Your task to perform on an android device: Go to calendar. Show me events next week Image 0: 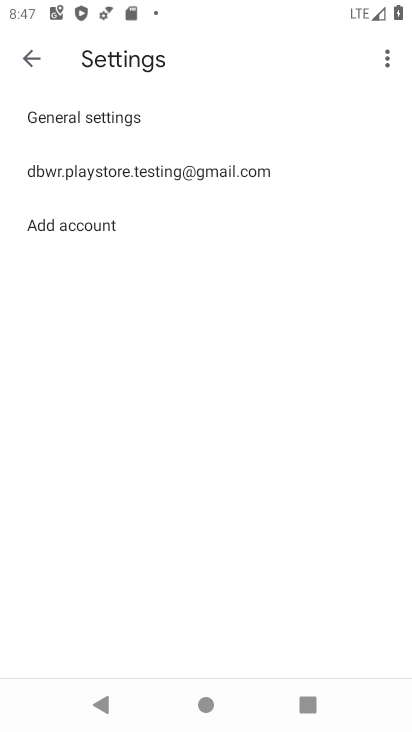
Step 0: press back button
Your task to perform on an android device: Go to calendar. Show me events next week Image 1: 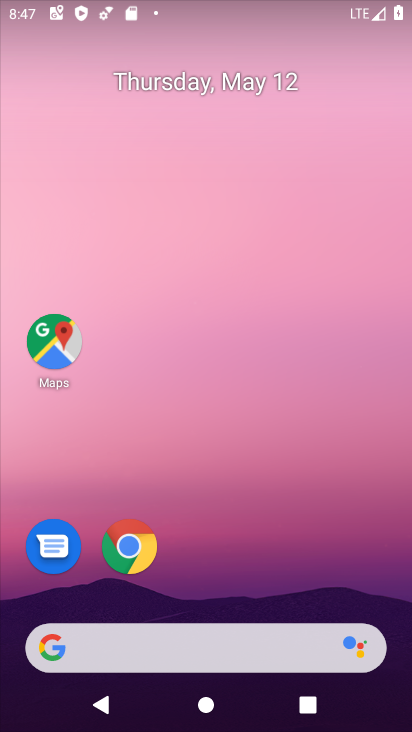
Step 1: drag from (210, 584) to (303, 114)
Your task to perform on an android device: Go to calendar. Show me events next week Image 2: 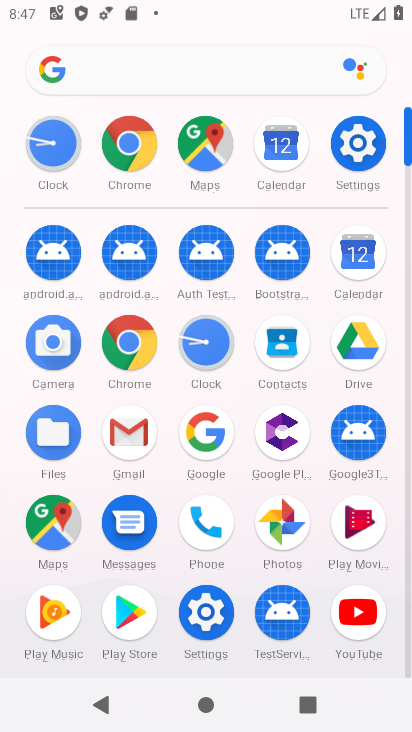
Step 2: click (361, 255)
Your task to perform on an android device: Go to calendar. Show me events next week Image 3: 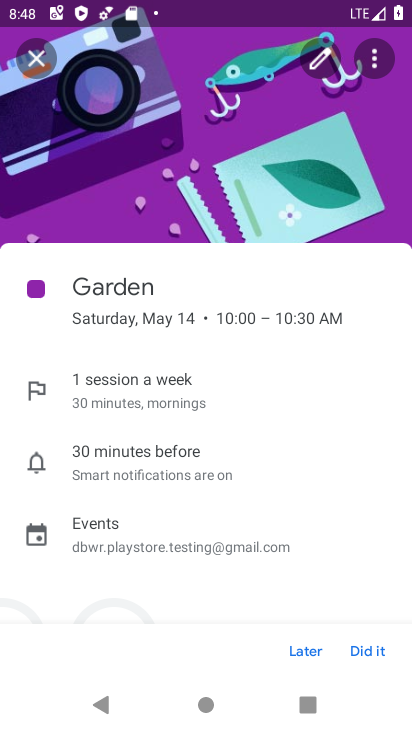
Step 3: click (31, 66)
Your task to perform on an android device: Go to calendar. Show me events next week Image 4: 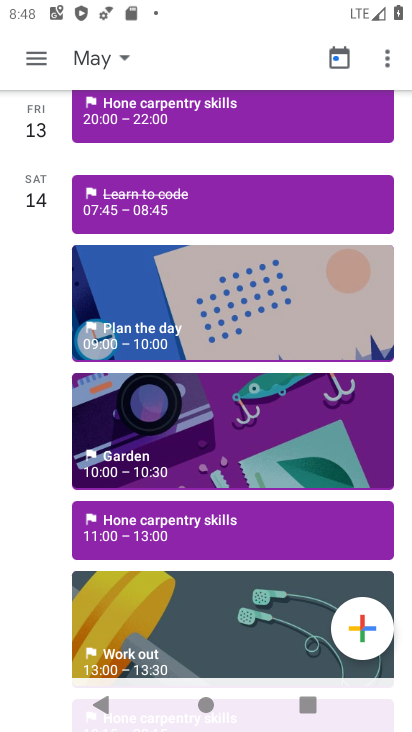
Step 4: drag from (210, 572) to (346, 79)
Your task to perform on an android device: Go to calendar. Show me events next week Image 5: 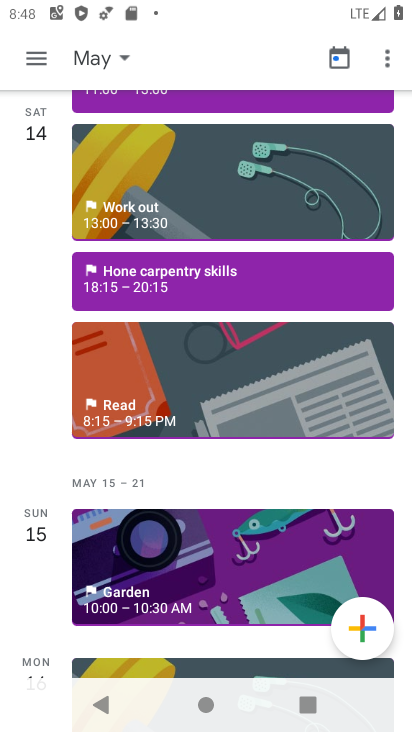
Step 5: drag from (235, 600) to (323, 64)
Your task to perform on an android device: Go to calendar. Show me events next week Image 6: 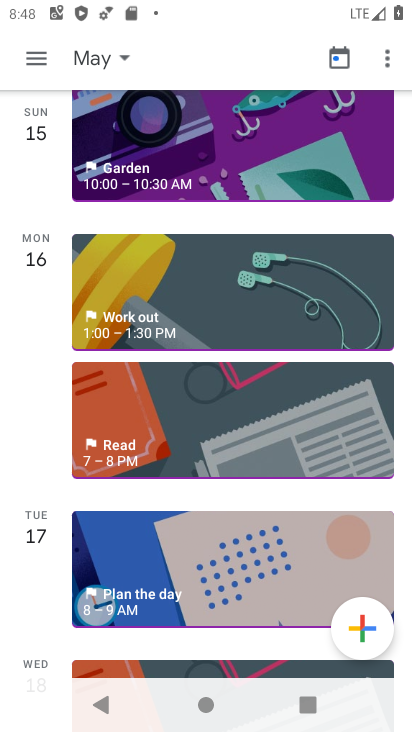
Step 6: drag from (193, 619) to (281, 165)
Your task to perform on an android device: Go to calendar. Show me events next week Image 7: 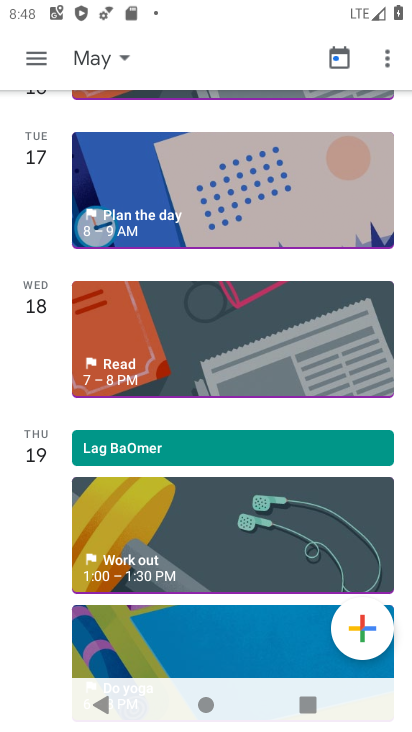
Step 7: click (194, 549)
Your task to perform on an android device: Go to calendar. Show me events next week Image 8: 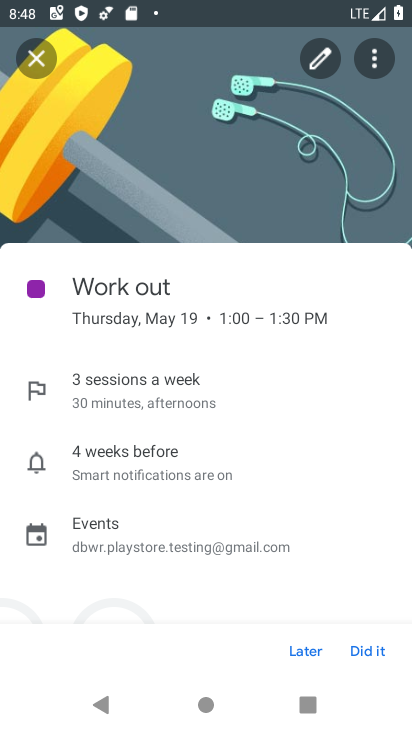
Step 8: task complete